Your task to perform on an android device: Go to CNN.com Image 0: 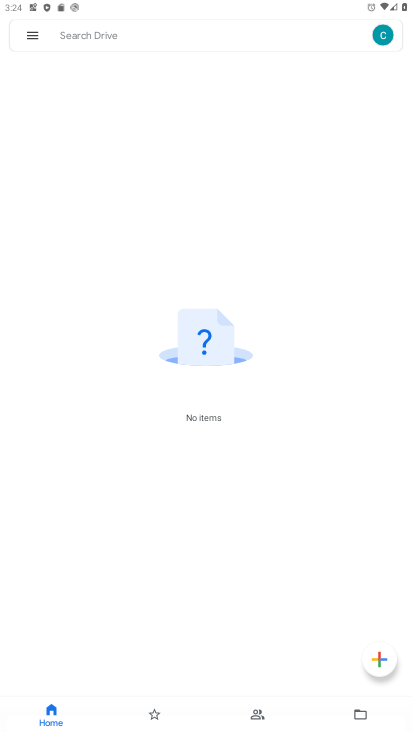
Step 0: press home button
Your task to perform on an android device: Go to CNN.com Image 1: 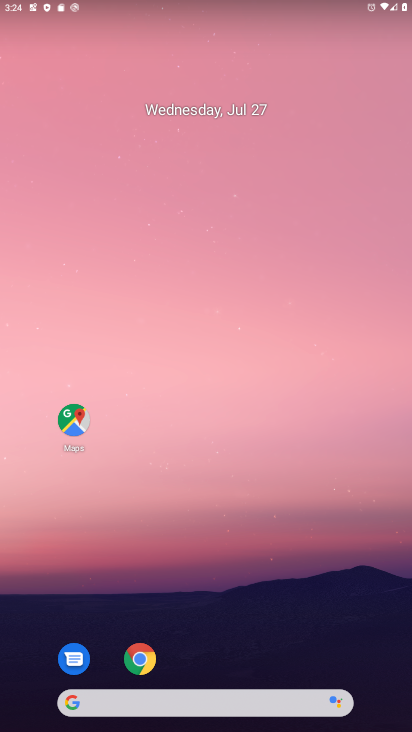
Step 1: click (138, 660)
Your task to perform on an android device: Go to CNN.com Image 2: 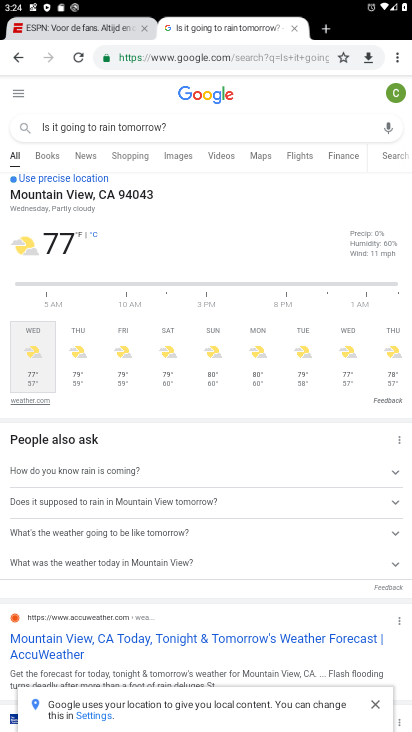
Step 2: click (213, 46)
Your task to perform on an android device: Go to CNN.com Image 3: 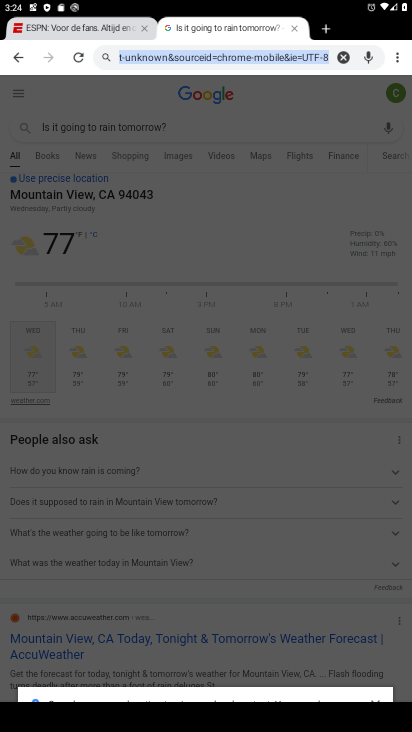
Step 3: type "cnn.com"
Your task to perform on an android device: Go to CNN.com Image 4: 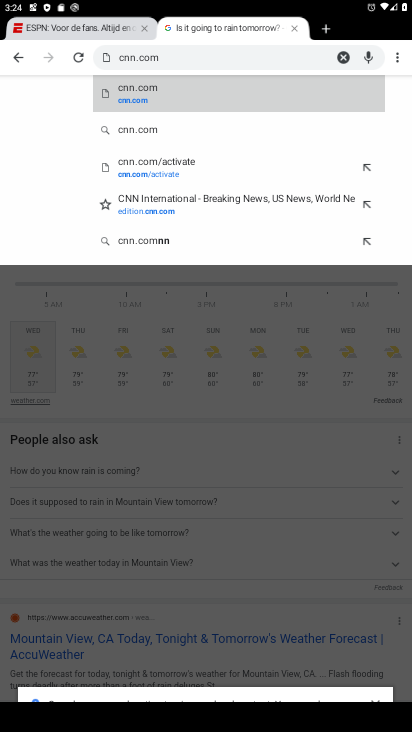
Step 4: click (204, 90)
Your task to perform on an android device: Go to CNN.com Image 5: 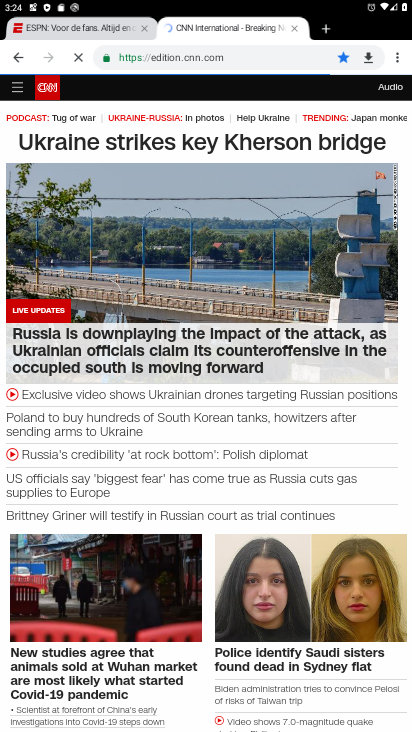
Step 5: task complete